Your task to perform on an android device: turn on data saver in the chrome app Image 0: 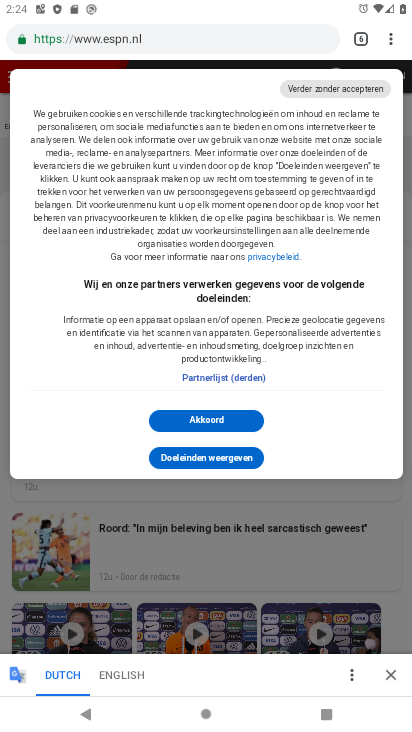
Step 0: click (394, 39)
Your task to perform on an android device: turn on data saver in the chrome app Image 1: 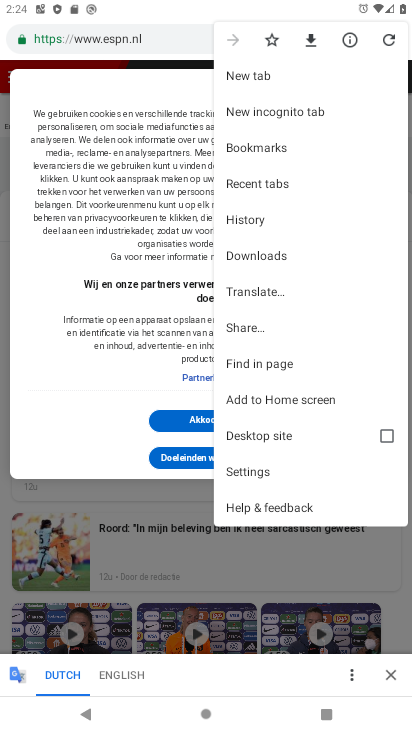
Step 1: click (248, 470)
Your task to perform on an android device: turn on data saver in the chrome app Image 2: 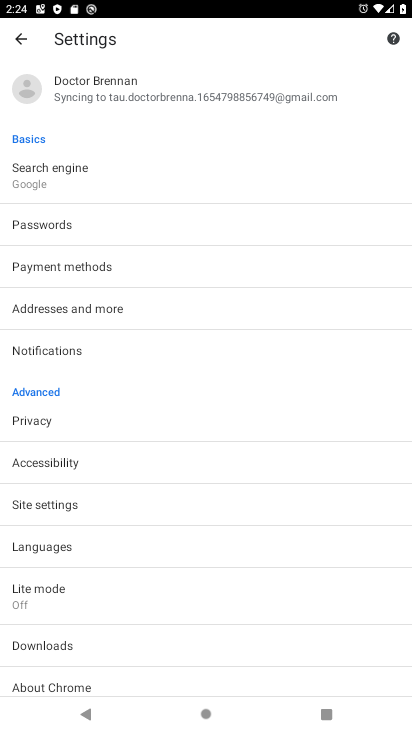
Step 2: click (25, 594)
Your task to perform on an android device: turn on data saver in the chrome app Image 3: 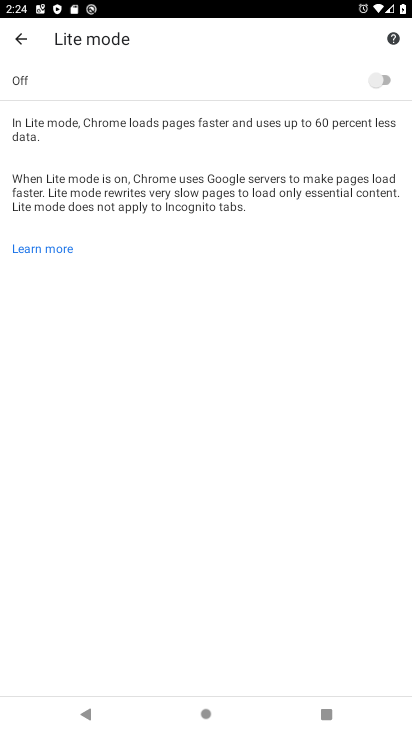
Step 3: click (389, 79)
Your task to perform on an android device: turn on data saver in the chrome app Image 4: 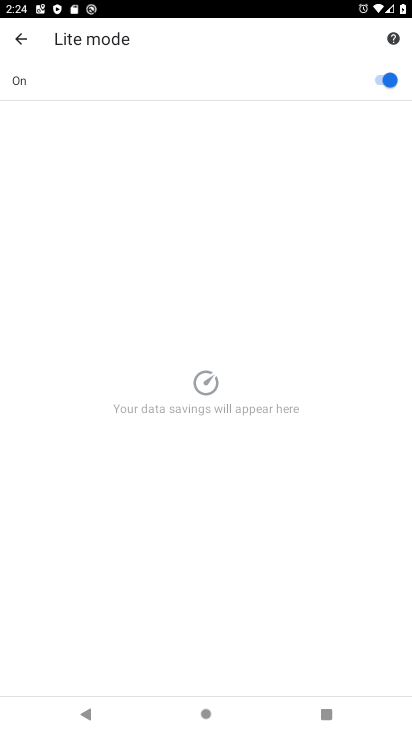
Step 4: task complete